Your task to perform on an android device: remove spam from my inbox in the gmail app Image 0: 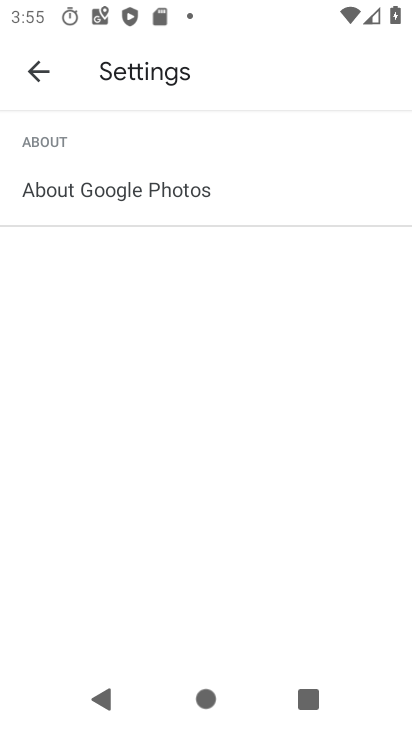
Step 0: press back button
Your task to perform on an android device: remove spam from my inbox in the gmail app Image 1: 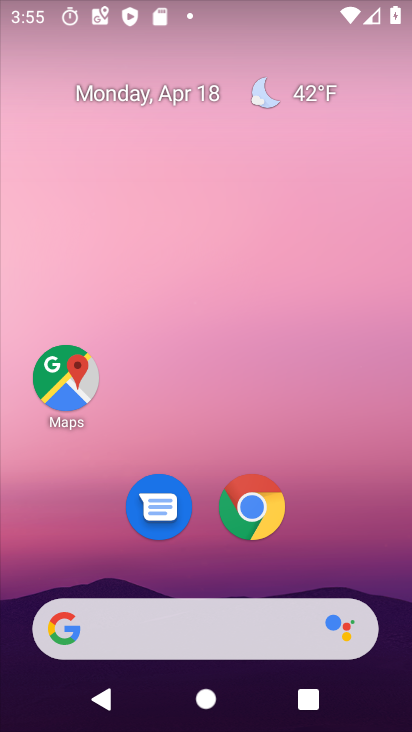
Step 1: drag from (322, 555) to (289, 59)
Your task to perform on an android device: remove spam from my inbox in the gmail app Image 2: 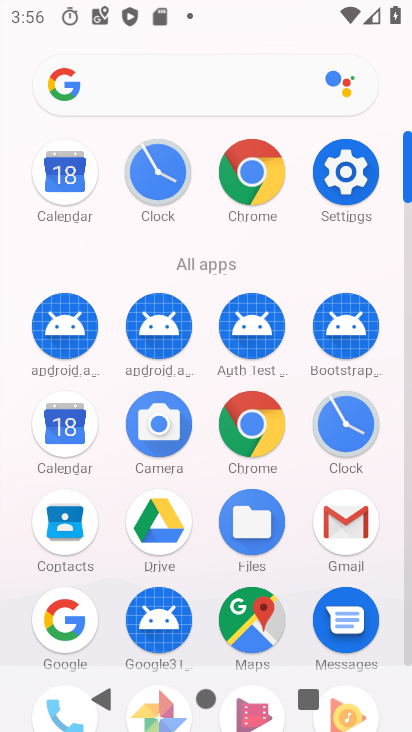
Step 2: click (340, 527)
Your task to perform on an android device: remove spam from my inbox in the gmail app Image 3: 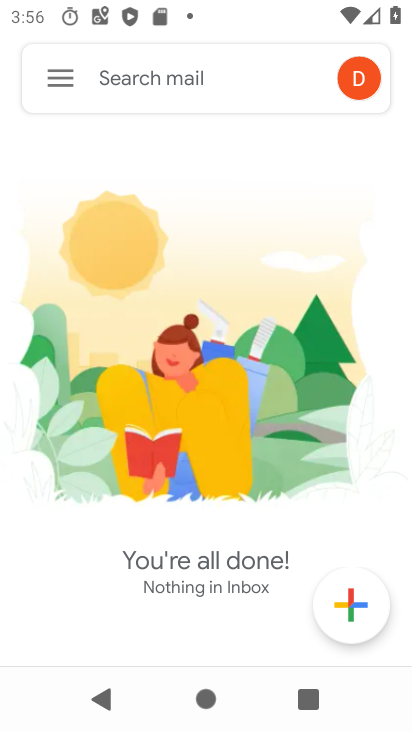
Step 3: click (67, 69)
Your task to perform on an android device: remove spam from my inbox in the gmail app Image 4: 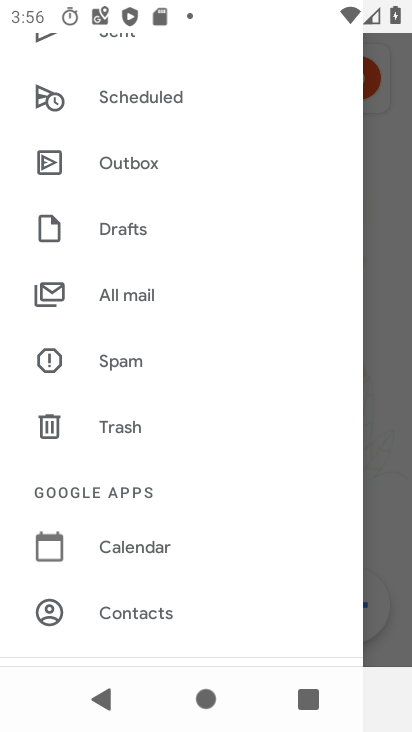
Step 4: click (126, 360)
Your task to perform on an android device: remove spam from my inbox in the gmail app Image 5: 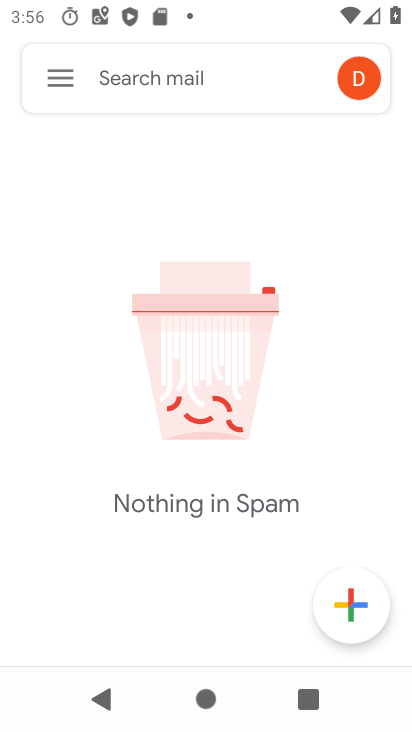
Step 5: task complete